Your task to perform on an android device: What's on my calendar tomorrow? Image 0: 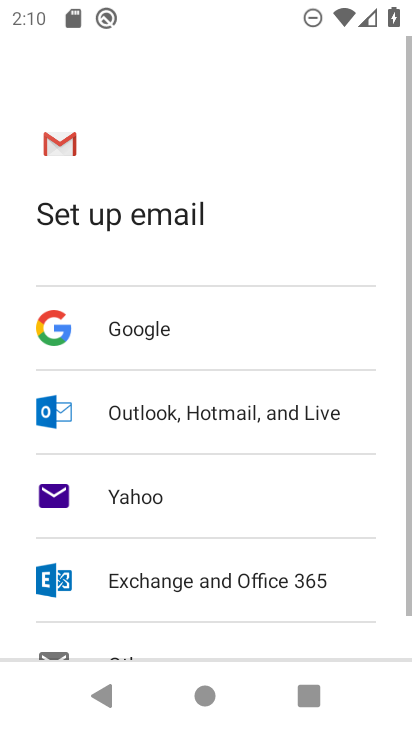
Step 0: press home button
Your task to perform on an android device: What's on my calendar tomorrow? Image 1: 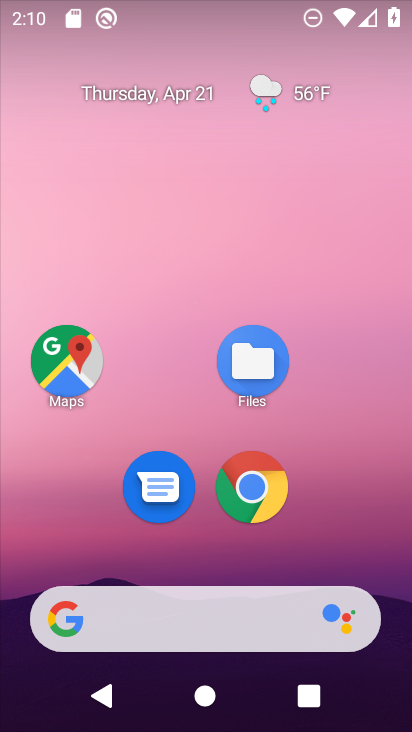
Step 1: drag from (373, 547) to (355, 55)
Your task to perform on an android device: What's on my calendar tomorrow? Image 2: 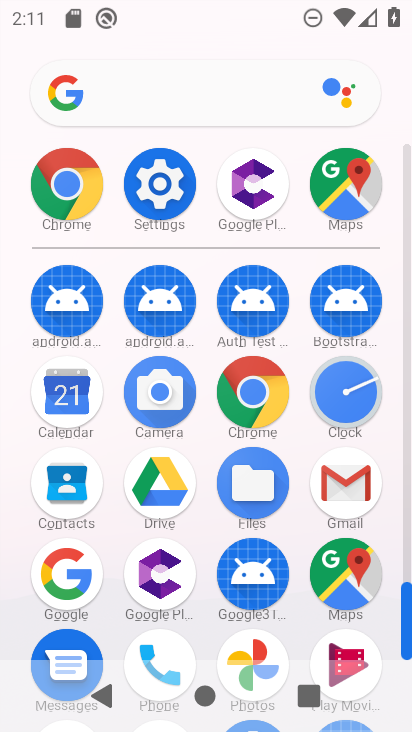
Step 2: click (72, 415)
Your task to perform on an android device: What's on my calendar tomorrow? Image 3: 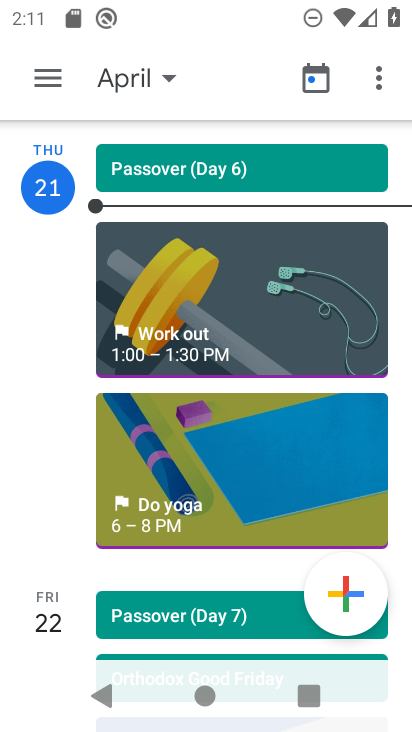
Step 3: drag from (82, 595) to (63, 359)
Your task to perform on an android device: What's on my calendar tomorrow? Image 4: 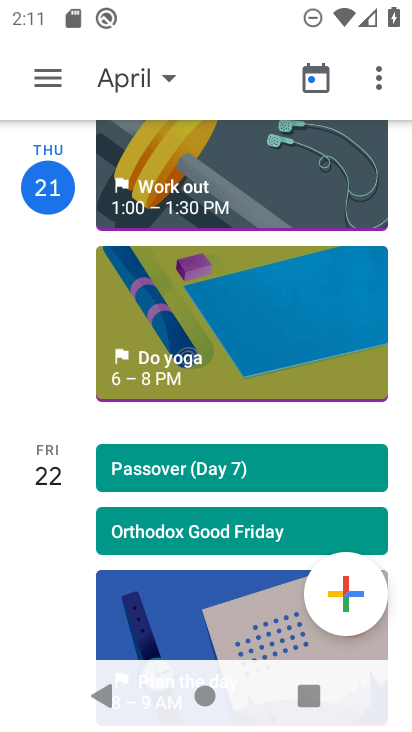
Step 4: click (108, 83)
Your task to perform on an android device: What's on my calendar tomorrow? Image 5: 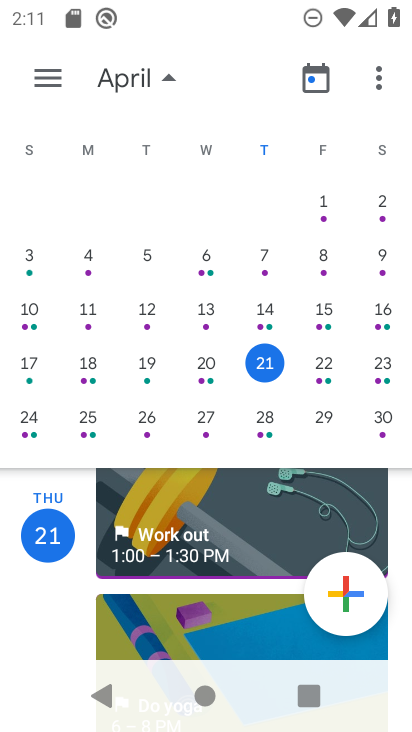
Step 5: click (320, 369)
Your task to perform on an android device: What's on my calendar tomorrow? Image 6: 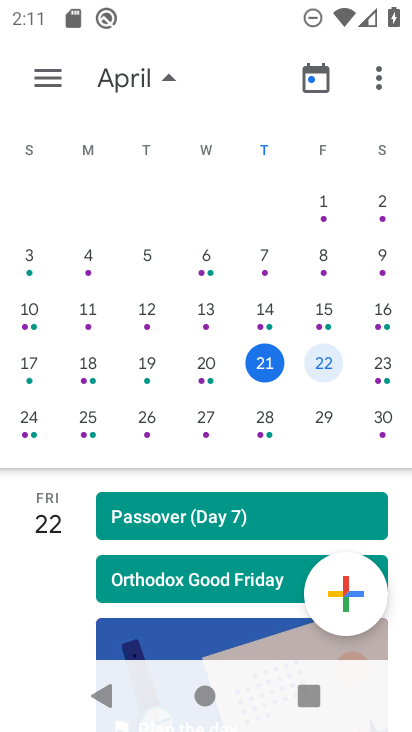
Step 6: task complete